Your task to perform on an android device: toggle notification dots Image 0: 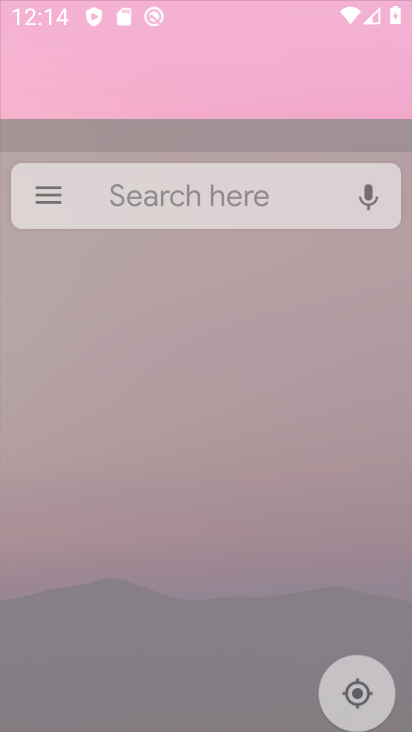
Step 0: drag from (286, 272) to (253, 7)
Your task to perform on an android device: toggle notification dots Image 1: 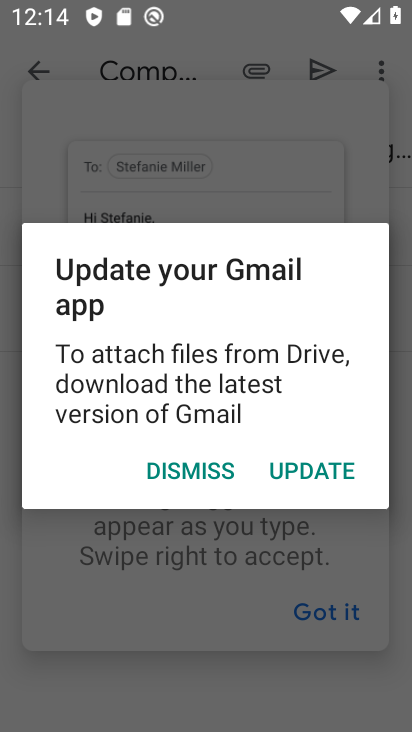
Step 1: press home button
Your task to perform on an android device: toggle notification dots Image 2: 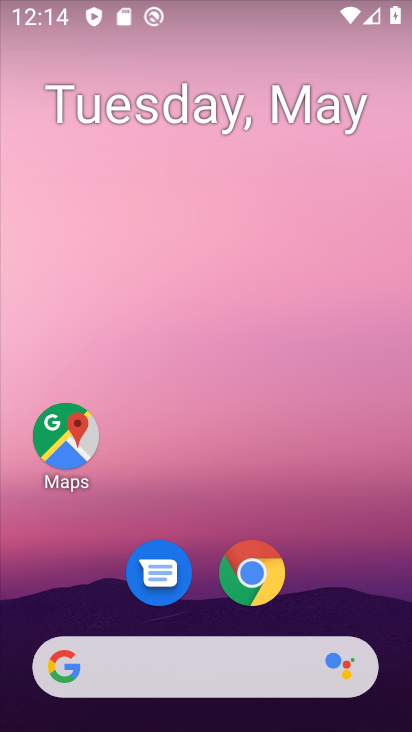
Step 2: drag from (369, 411) to (334, 74)
Your task to perform on an android device: toggle notification dots Image 3: 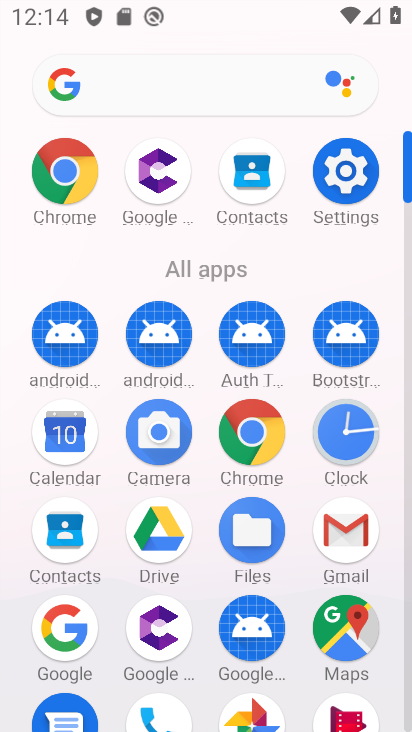
Step 3: click (335, 160)
Your task to perform on an android device: toggle notification dots Image 4: 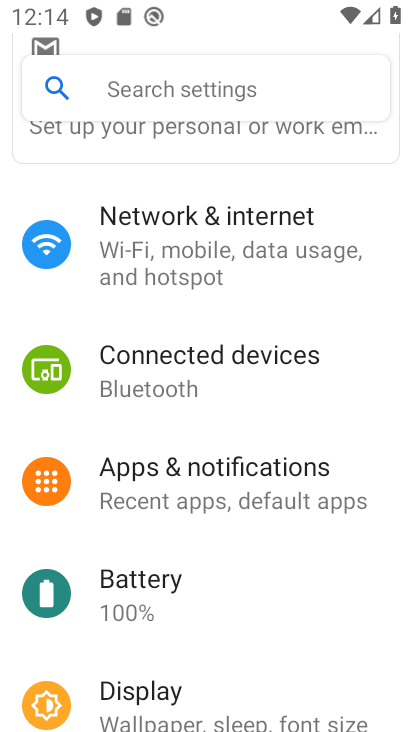
Step 4: click (235, 471)
Your task to perform on an android device: toggle notification dots Image 5: 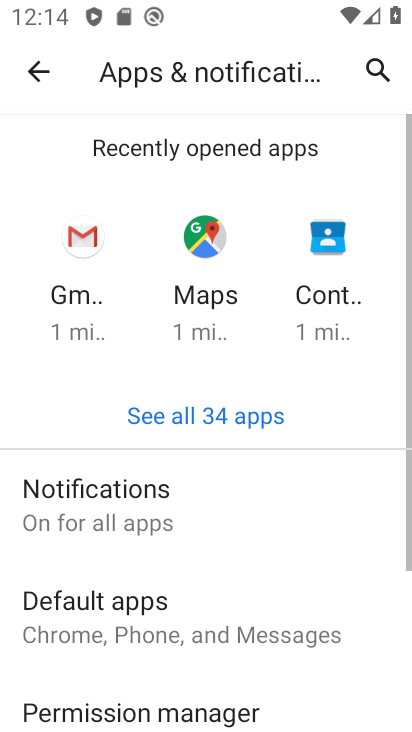
Step 5: click (120, 495)
Your task to perform on an android device: toggle notification dots Image 6: 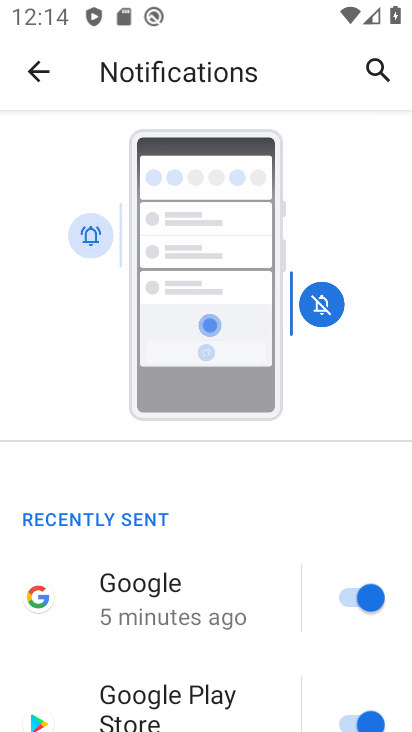
Step 6: drag from (198, 639) to (218, 118)
Your task to perform on an android device: toggle notification dots Image 7: 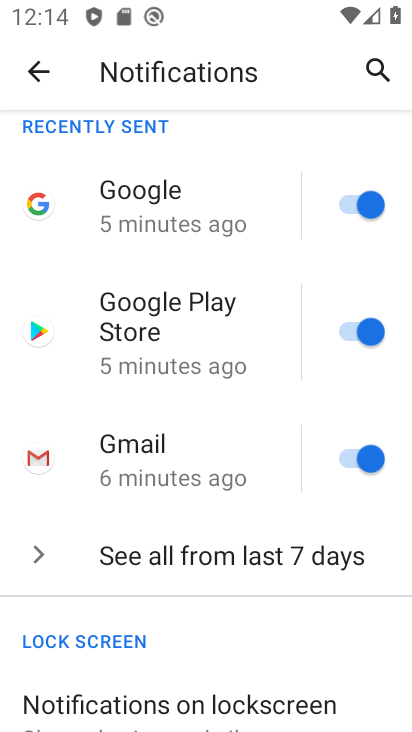
Step 7: drag from (176, 605) to (137, 209)
Your task to perform on an android device: toggle notification dots Image 8: 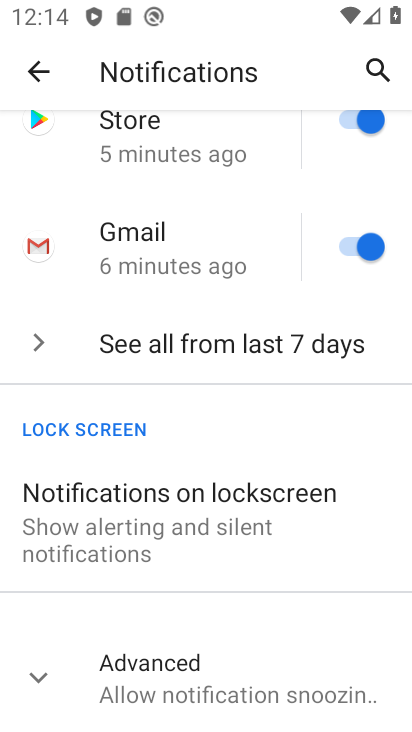
Step 8: click (150, 673)
Your task to perform on an android device: toggle notification dots Image 9: 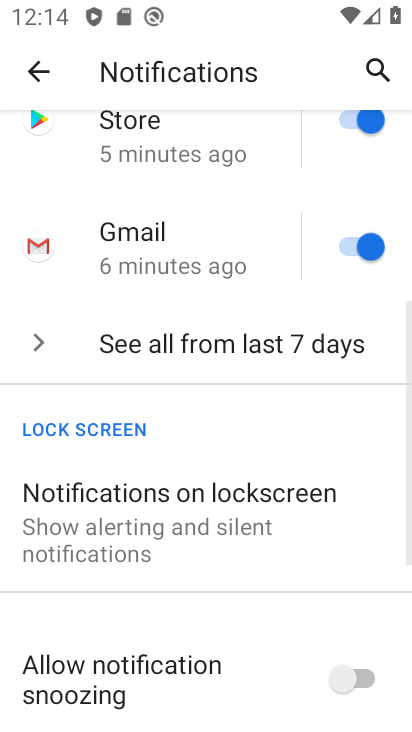
Step 9: drag from (150, 673) to (238, 301)
Your task to perform on an android device: toggle notification dots Image 10: 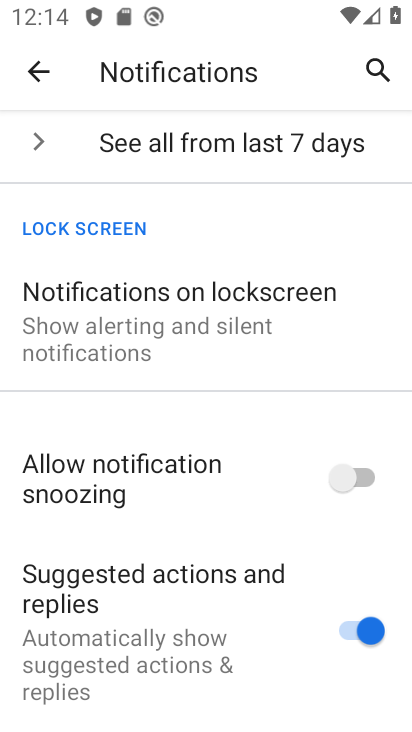
Step 10: drag from (206, 636) to (211, 309)
Your task to perform on an android device: toggle notification dots Image 11: 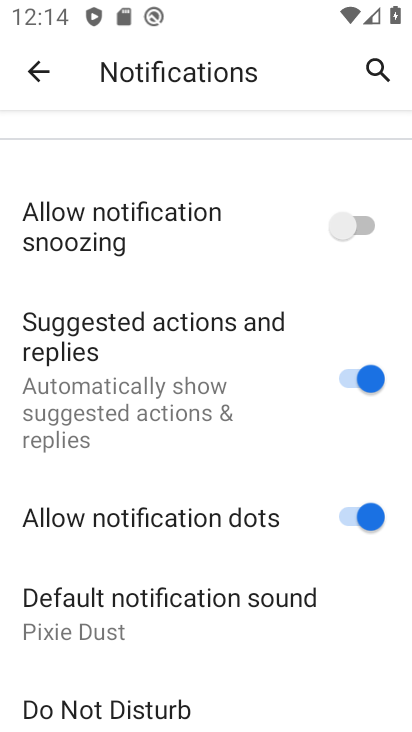
Step 11: click (369, 510)
Your task to perform on an android device: toggle notification dots Image 12: 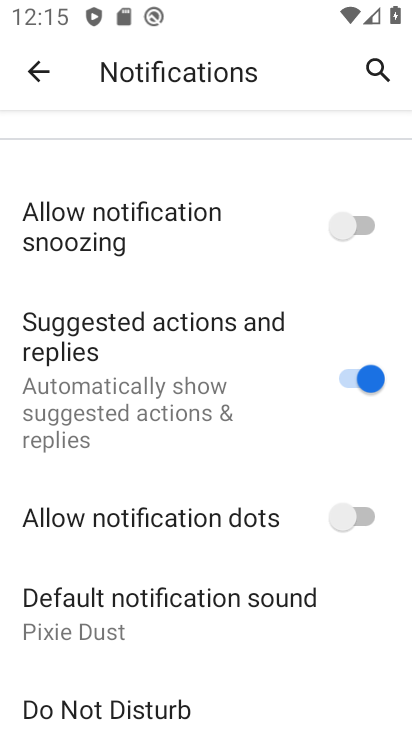
Step 12: task complete